Your task to perform on an android device: Go to Maps Image 0: 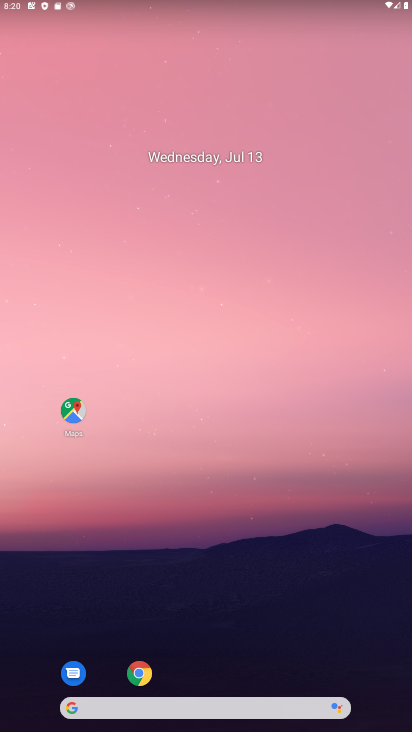
Step 0: drag from (312, 615) to (343, 165)
Your task to perform on an android device: Go to Maps Image 1: 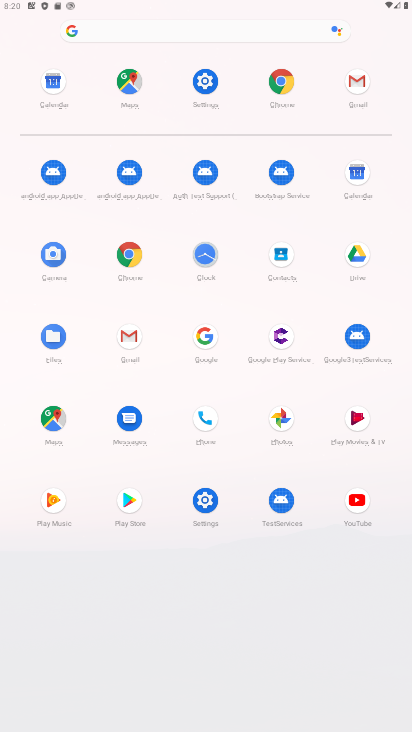
Step 1: click (136, 85)
Your task to perform on an android device: Go to Maps Image 2: 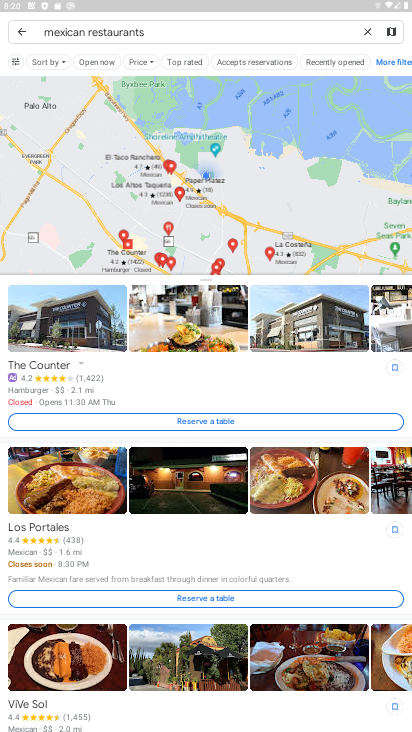
Step 2: task complete